Your task to perform on an android device: open wifi settings Image 0: 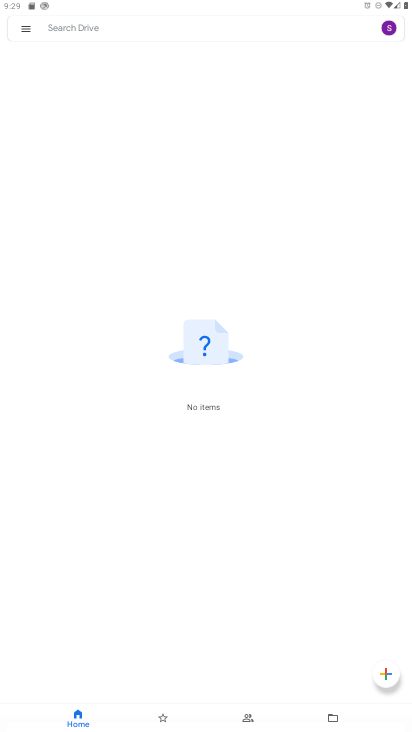
Step 0: press home button
Your task to perform on an android device: open wifi settings Image 1: 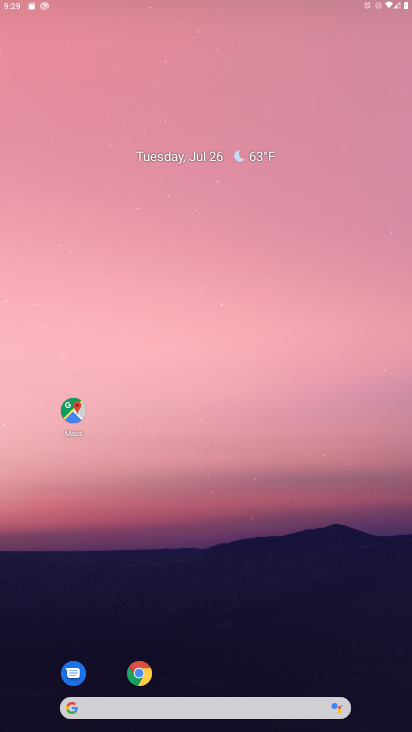
Step 1: drag from (331, 543) to (217, 170)
Your task to perform on an android device: open wifi settings Image 2: 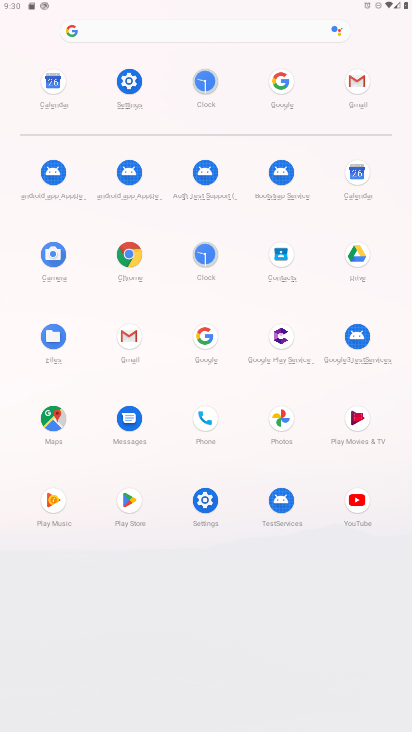
Step 2: click (205, 511)
Your task to perform on an android device: open wifi settings Image 3: 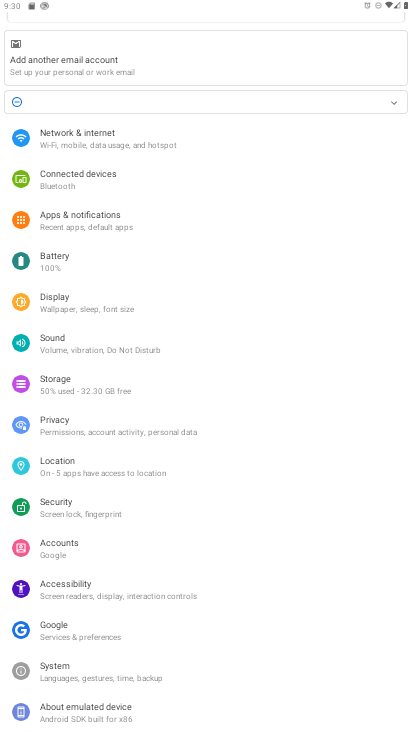
Step 3: click (108, 144)
Your task to perform on an android device: open wifi settings Image 4: 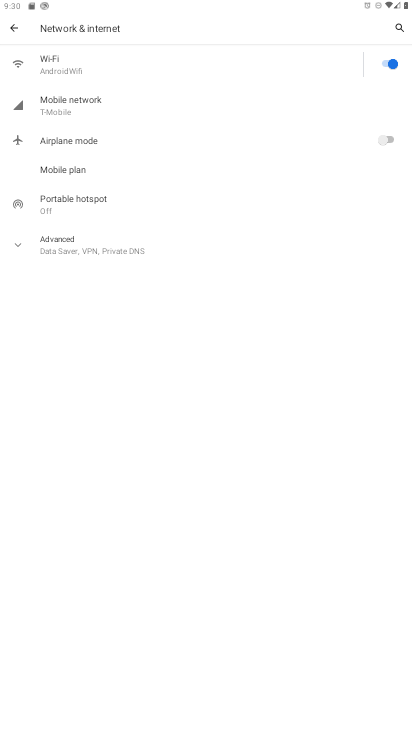
Step 4: click (102, 49)
Your task to perform on an android device: open wifi settings Image 5: 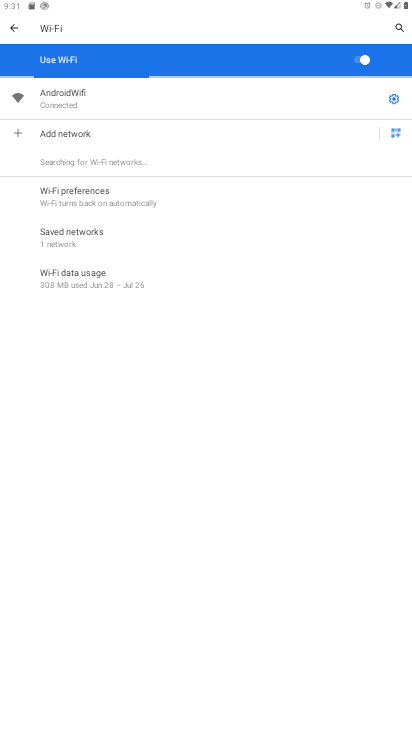
Step 5: task complete